Your task to perform on an android device: What's the weather today? Image 0: 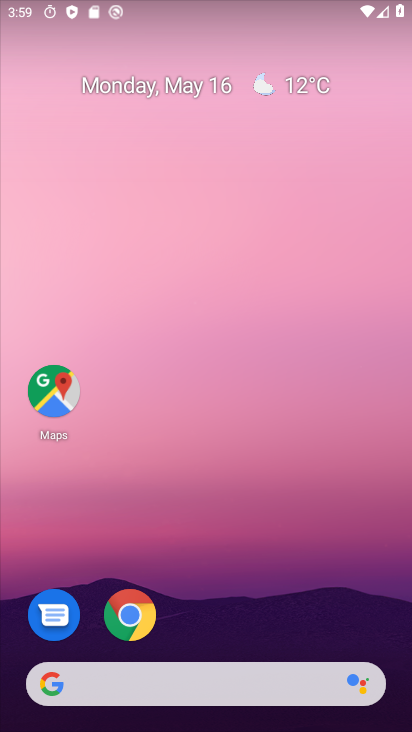
Step 0: drag from (291, 670) to (80, 117)
Your task to perform on an android device: What's the weather today? Image 1: 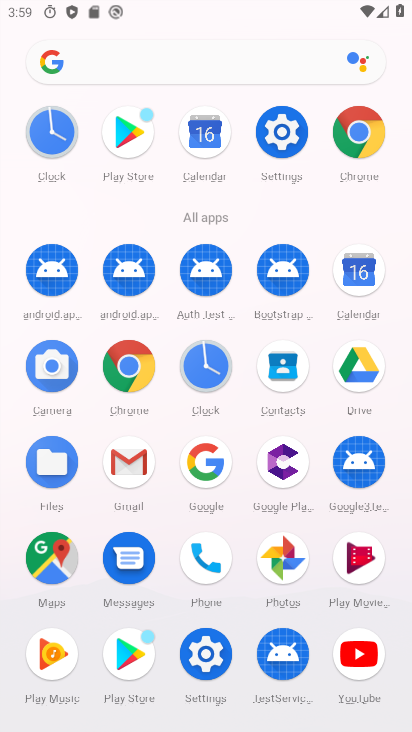
Step 1: press back button
Your task to perform on an android device: What's the weather today? Image 2: 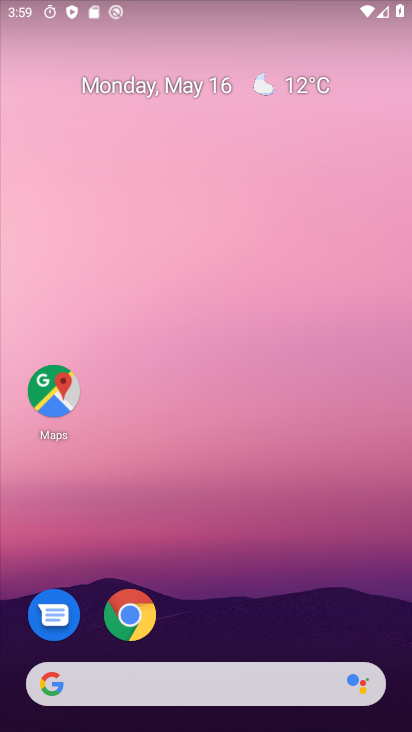
Step 2: drag from (4, 185) to (396, 486)
Your task to perform on an android device: What's the weather today? Image 3: 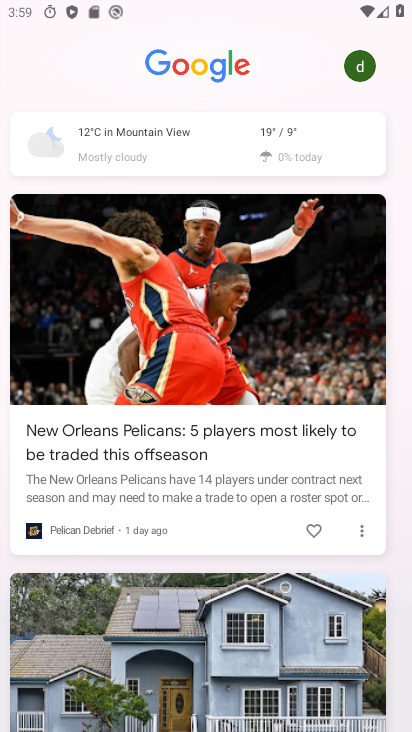
Step 3: drag from (4, 176) to (398, 528)
Your task to perform on an android device: What's the weather today? Image 4: 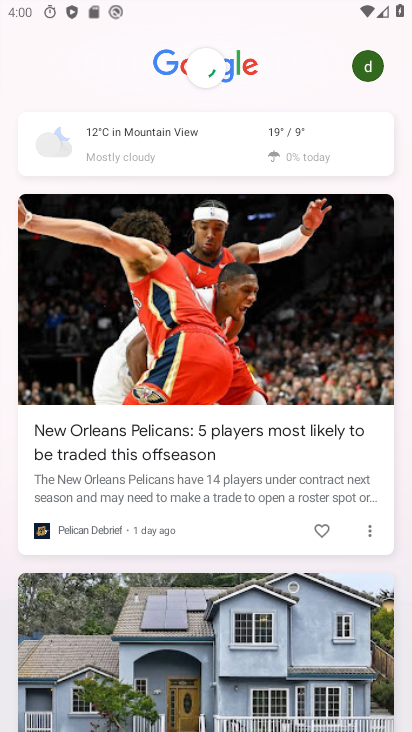
Step 4: click (154, 147)
Your task to perform on an android device: What's the weather today? Image 5: 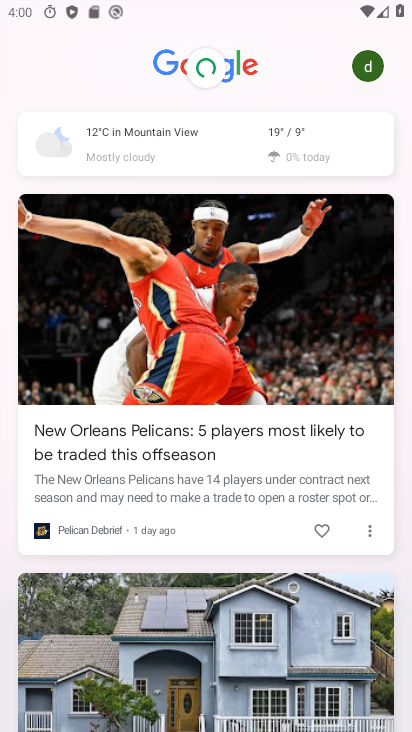
Step 5: click (167, 153)
Your task to perform on an android device: What's the weather today? Image 6: 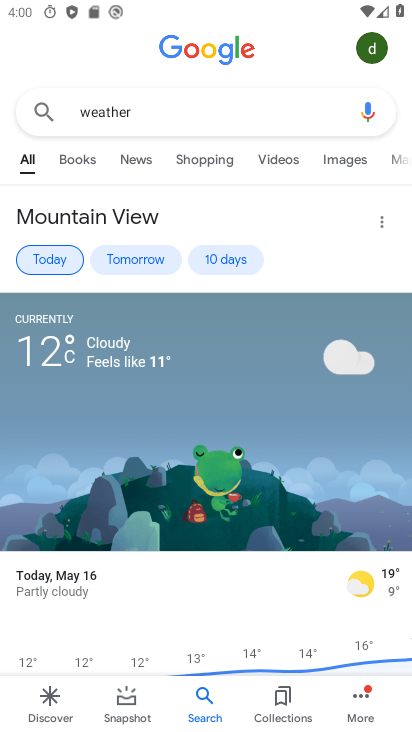
Step 6: task complete